Your task to perform on an android device: Go to ESPN.com Image 0: 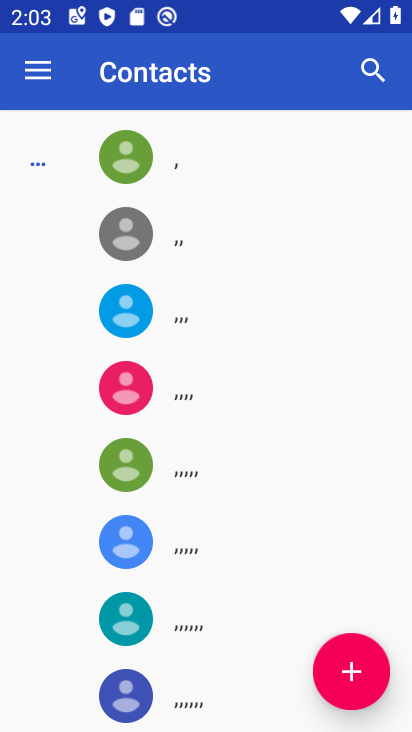
Step 0: press home button
Your task to perform on an android device: Go to ESPN.com Image 1: 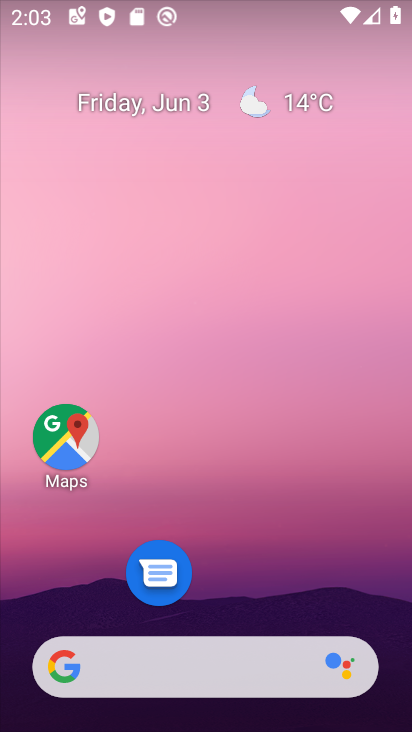
Step 1: drag from (225, 631) to (257, 49)
Your task to perform on an android device: Go to ESPN.com Image 2: 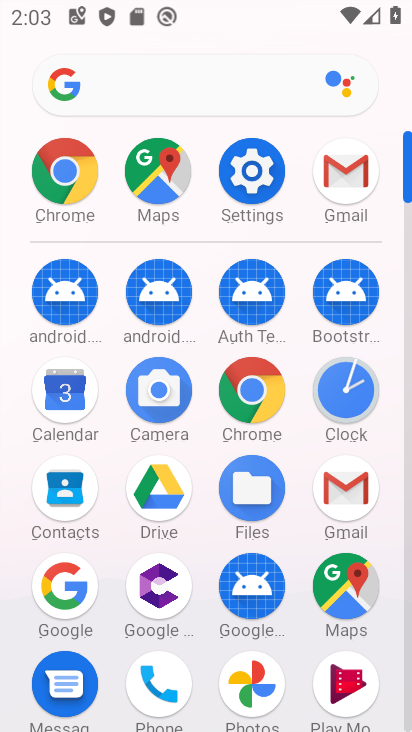
Step 2: click (253, 389)
Your task to perform on an android device: Go to ESPN.com Image 3: 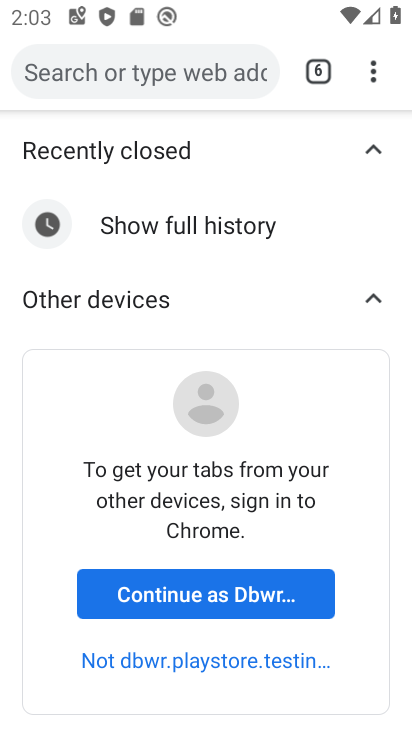
Step 3: press back button
Your task to perform on an android device: Go to ESPN.com Image 4: 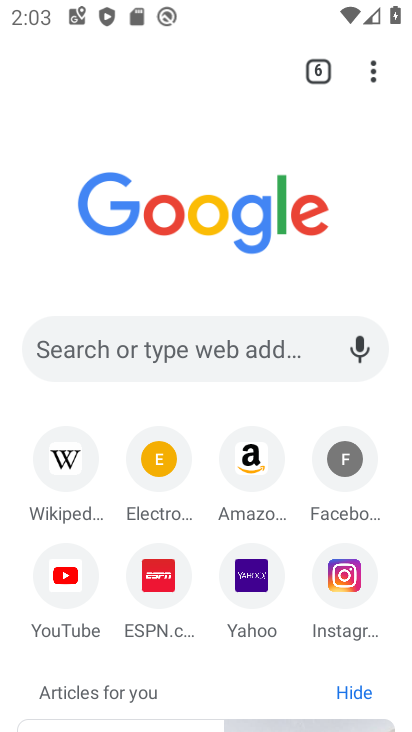
Step 4: click (157, 575)
Your task to perform on an android device: Go to ESPN.com Image 5: 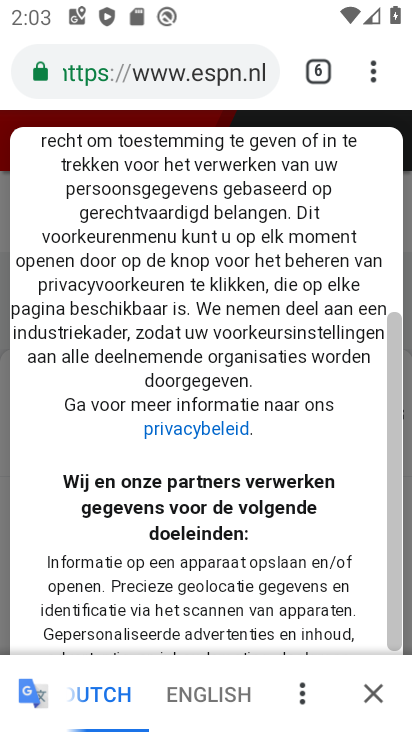
Step 5: task complete